Your task to perform on an android device: allow cookies in the chrome app Image 0: 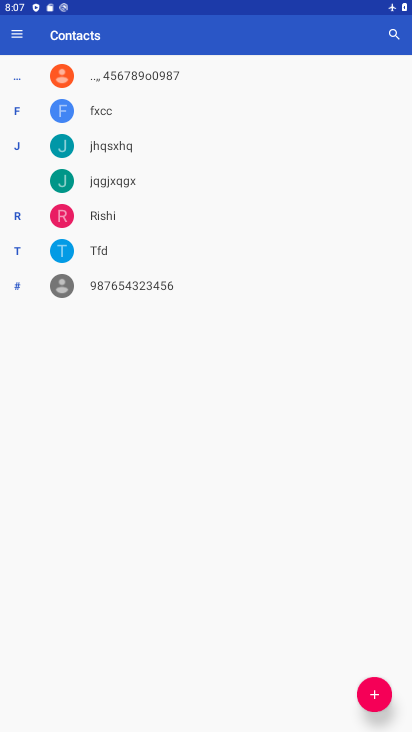
Step 0: press home button
Your task to perform on an android device: allow cookies in the chrome app Image 1: 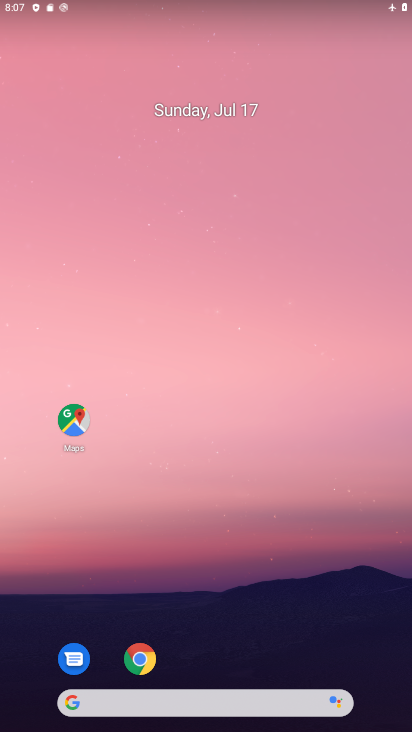
Step 1: click (139, 664)
Your task to perform on an android device: allow cookies in the chrome app Image 2: 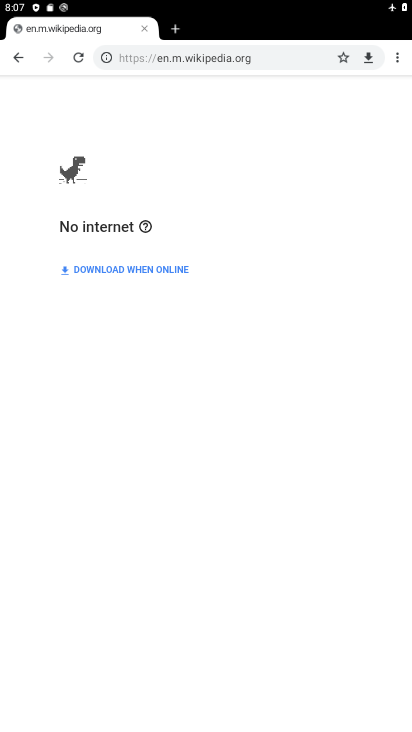
Step 2: click (399, 60)
Your task to perform on an android device: allow cookies in the chrome app Image 3: 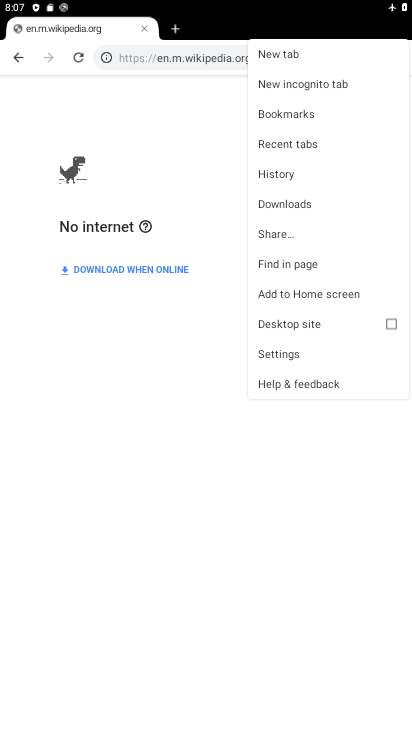
Step 3: click (287, 356)
Your task to perform on an android device: allow cookies in the chrome app Image 4: 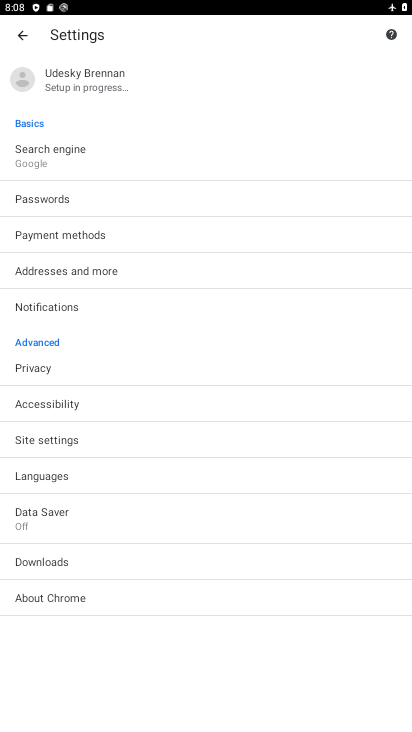
Step 4: click (64, 446)
Your task to perform on an android device: allow cookies in the chrome app Image 5: 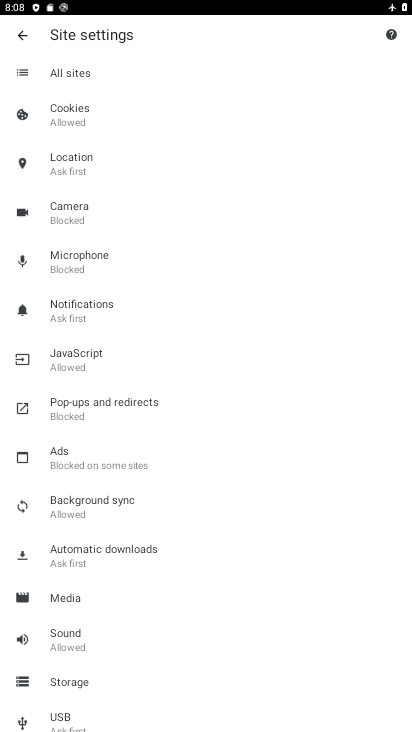
Step 5: click (87, 119)
Your task to perform on an android device: allow cookies in the chrome app Image 6: 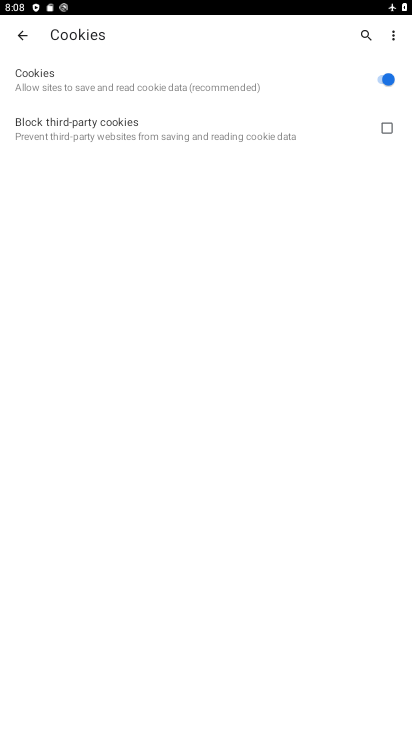
Step 6: click (394, 129)
Your task to perform on an android device: allow cookies in the chrome app Image 7: 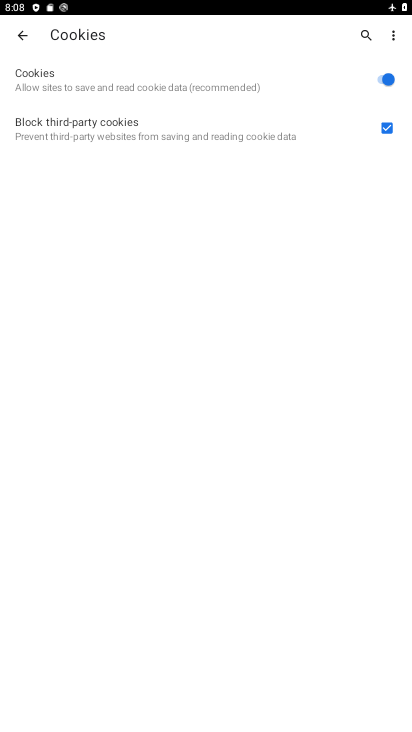
Step 7: task complete